Your task to perform on an android device: turn notification dots off Image 0: 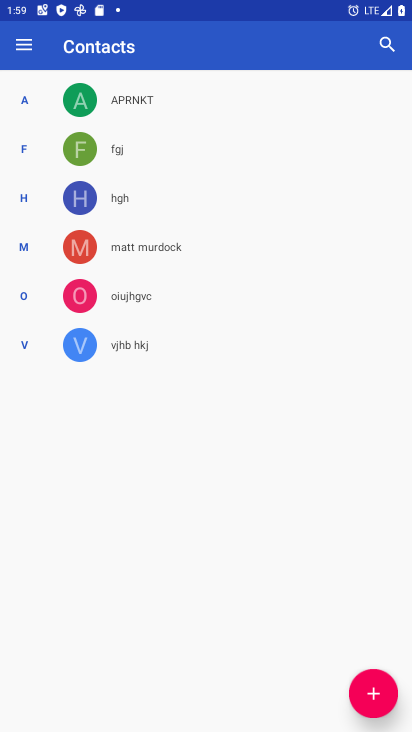
Step 0: press home button
Your task to perform on an android device: turn notification dots off Image 1: 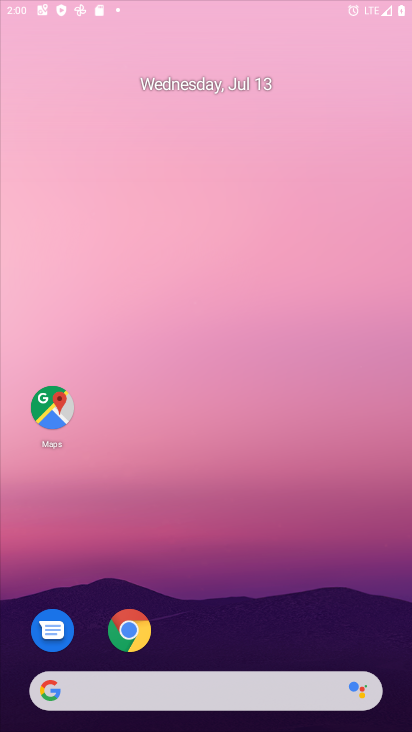
Step 1: drag from (375, 454) to (274, 48)
Your task to perform on an android device: turn notification dots off Image 2: 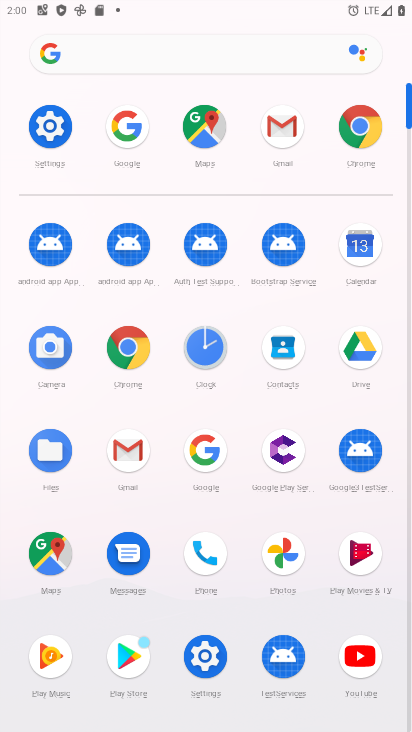
Step 2: click (50, 113)
Your task to perform on an android device: turn notification dots off Image 3: 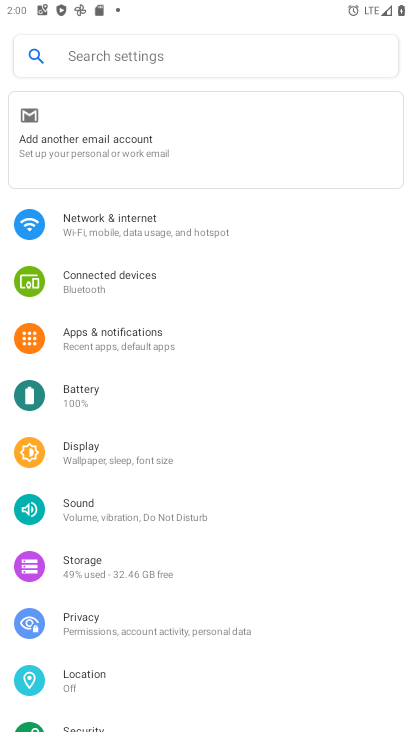
Step 3: click (158, 335)
Your task to perform on an android device: turn notification dots off Image 4: 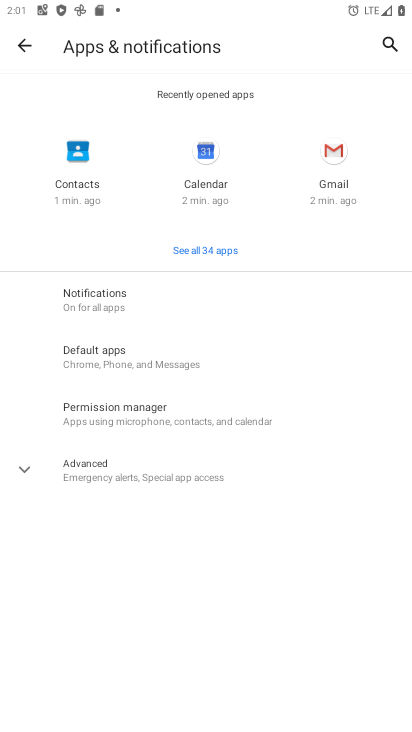
Step 4: click (137, 325)
Your task to perform on an android device: turn notification dots off Image 5: 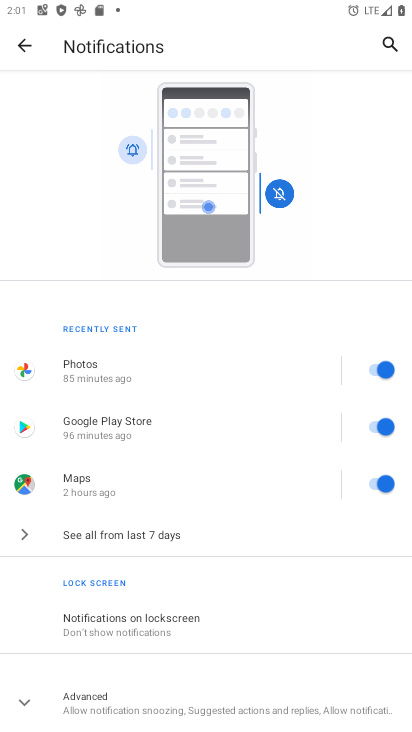
Step 5: click (137, 674)
Your task to perform on an android device: turn notification dots off Image 6: 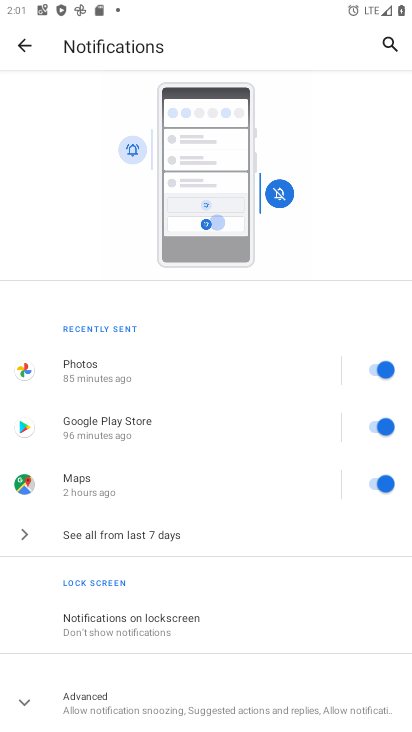
Step 6: drag from (139, 705) to (136, 204)
Your task to perform on an android device: turn notification dots off Image 7: 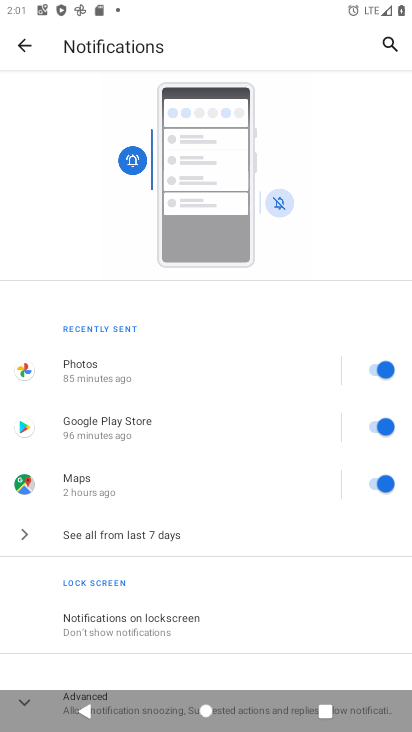
Step 7: drag from (119, 664) to (124, 259)
Your task to perform on an android device: turn notification dots off Image 8: 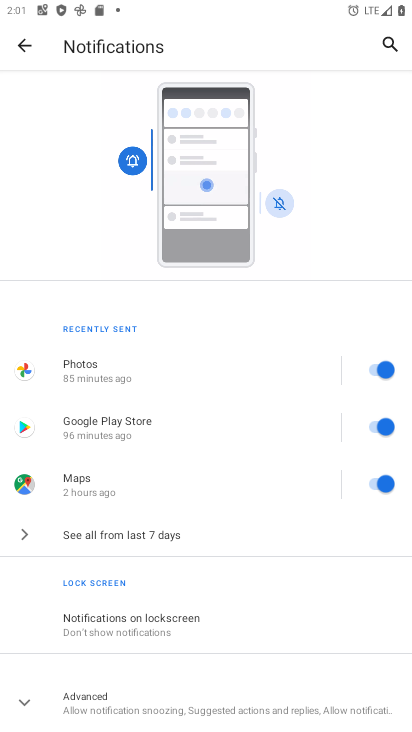
Step 8: click (84, 703)
Your task to perform on an android device: turn notification dots off Image 9: 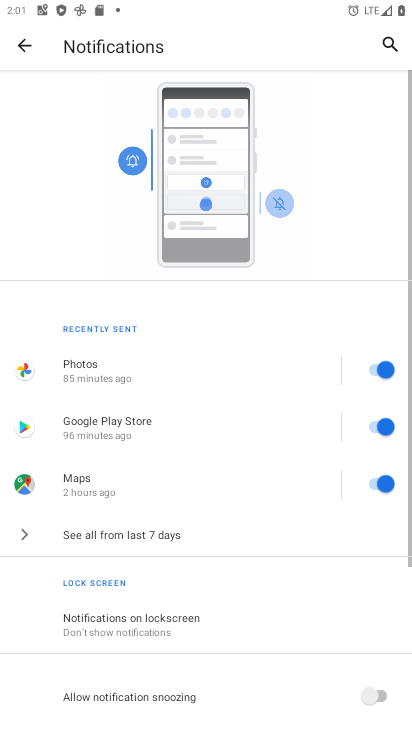
Step 9: drag from (83, 700) to (109, 300)
Your task to perform on an android device: turn notification dots off Image 10: 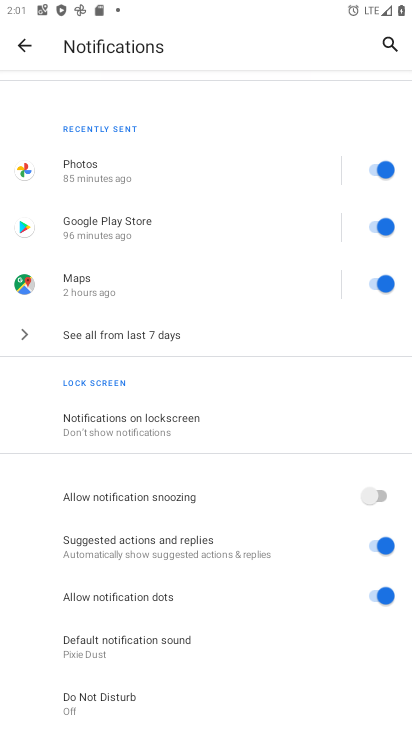
Step 10: click (358, 592)
Your task to perform on an android device: turn notification dots off Image 11: 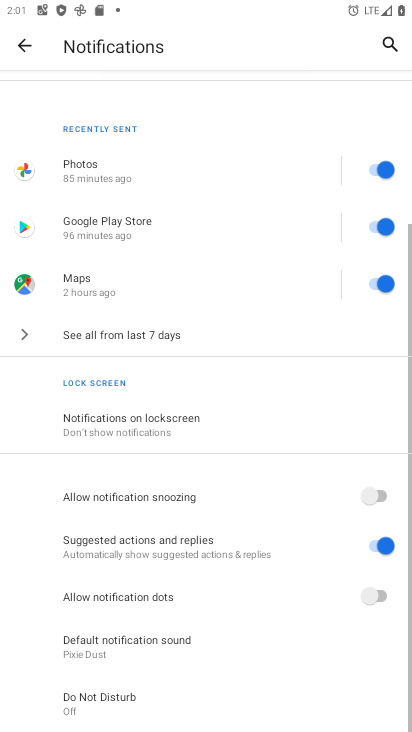
Step 11: task complete